Your task to perform on an android device: Go to notification settings Image 0: 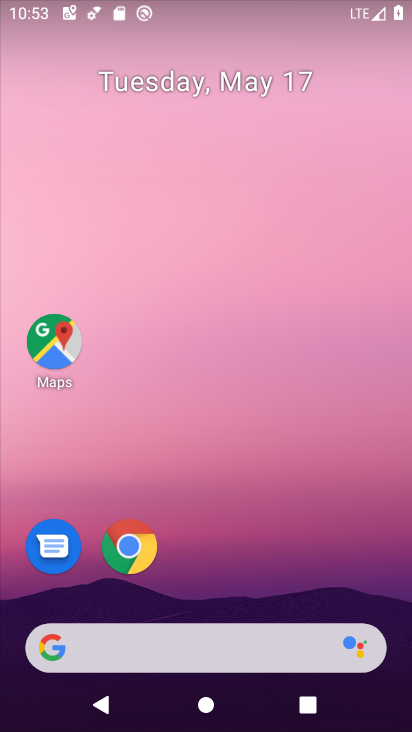
Step 0: drag from (226, 588) to (265, 177)
Your task to perform on an android device: Go to notification settings Image 1: 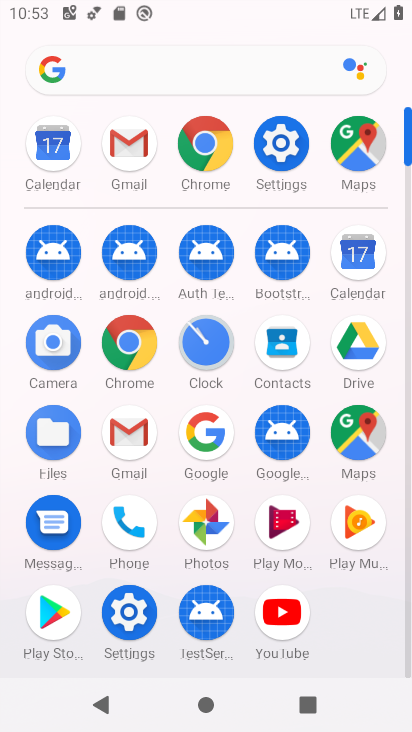
Step 1: click (137, 613)
Your task to perform on an android device: Go to notification settings Image 2: 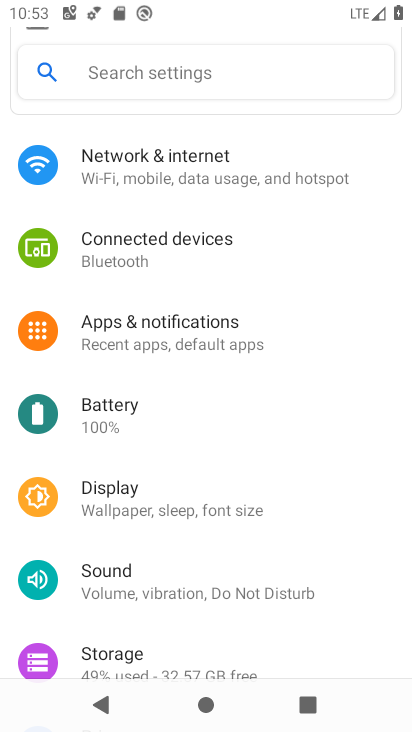
Step 2: click (191, 336)
Your task to perform on an android device: Go to notification settings Image 3: 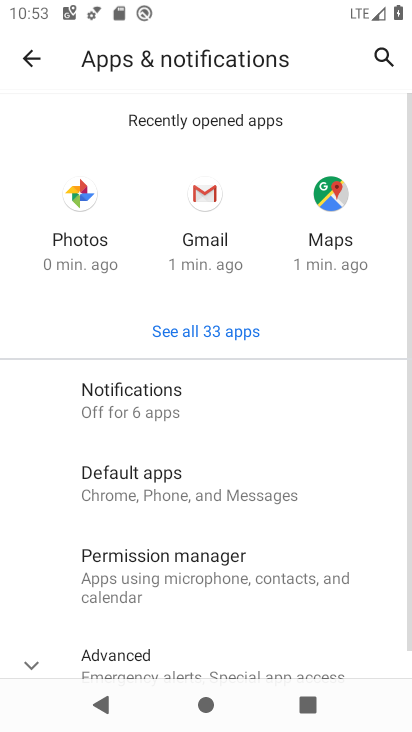
Step 3: click (169, 397)
Your task to perform on an android device: Go to notification settings Image 4: 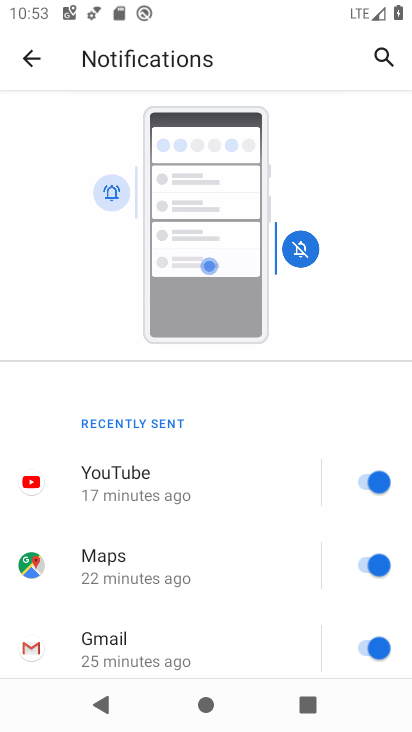
Step 4: task complete